Your task to perform on an android device: toggle notifications settings in the gmail app Image 0: 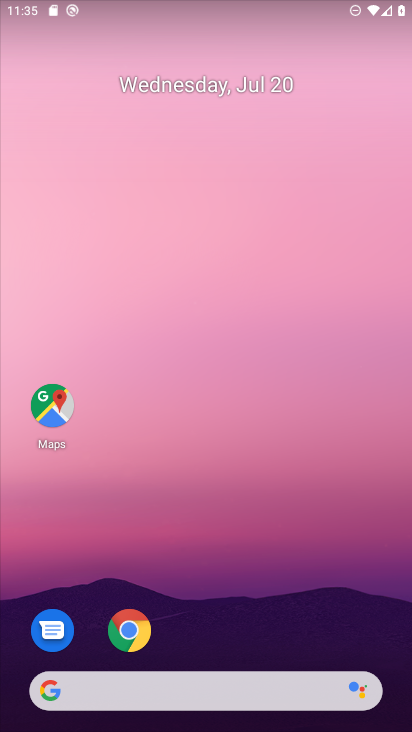
Step 0: drag from (222, 631) to (220, 80)
Your task to perform on an android device: toggle notifications settings in the gmail app Image 1: 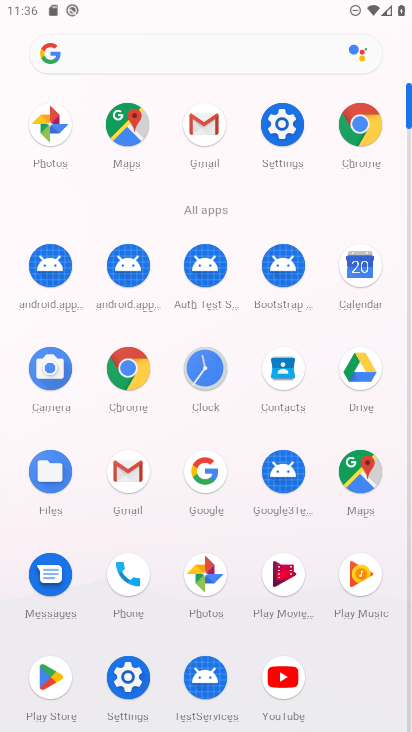
Step 1: click (132, 480)
Your task to perform on an android device: toggle notifications settings in the gmail app Image 2: 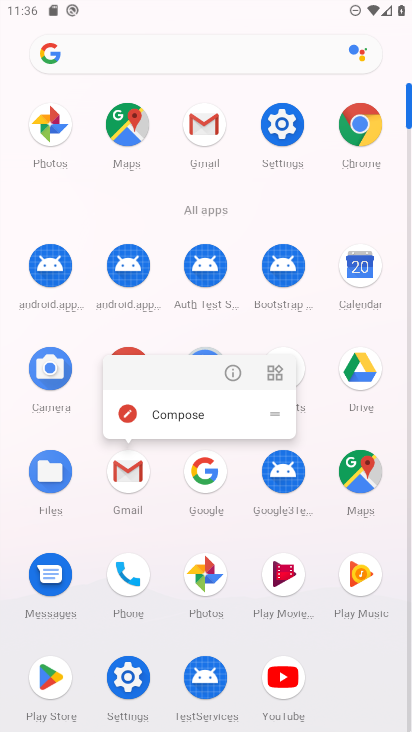
Step 2: click (127, 482)
Your task to perform on an android device: toggle notifications settings in the gmail app Image 3: 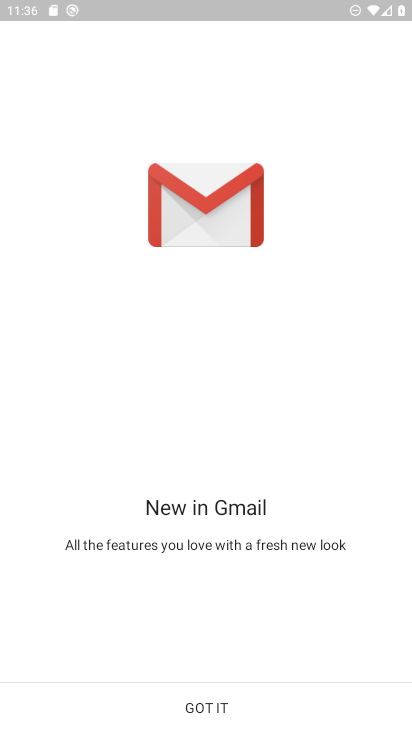
Step 3: click (243, 716)
Your task to perform on an android device: toggle notifications settings in the gmail app Image 4: 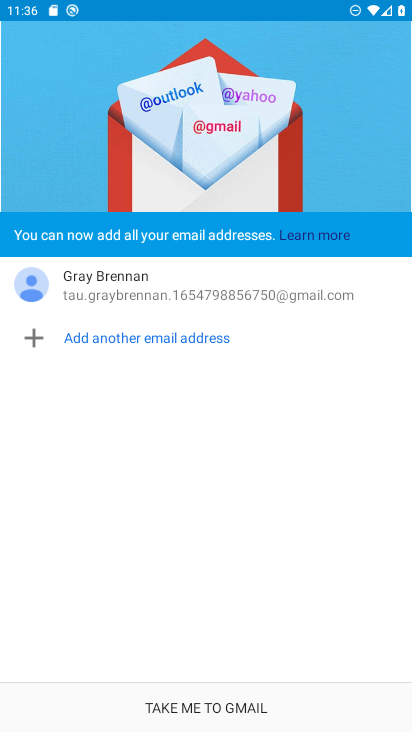
Step 4: click (237, 709)
Your task to perform on an android device: toggle notifications settings in the gmail app Image 5: 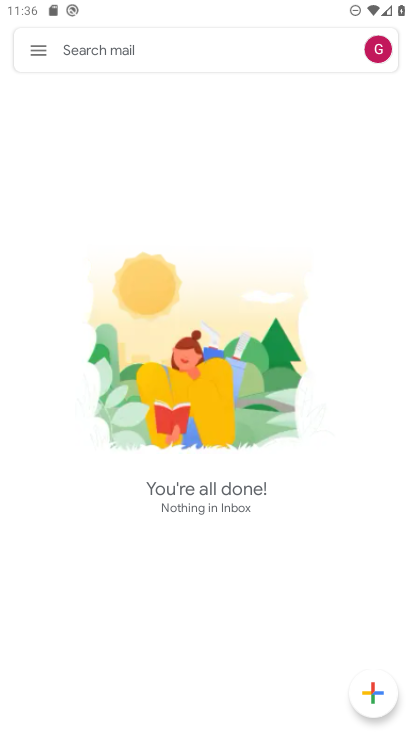
Step 5: click (30, 36)
Your task to perform on an android device: toggle notifications settings in the gmail app Image 6: 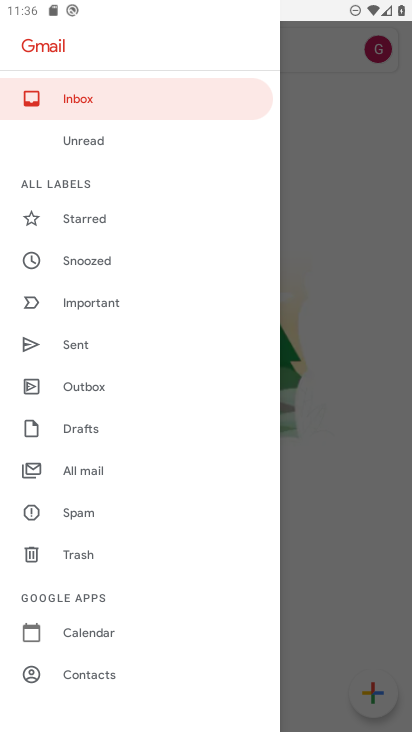
Step 6: drag from (88, 614) to (107, 276)
Your task to perform on an android device: toggle notifications settings in the gmail app Image 7: 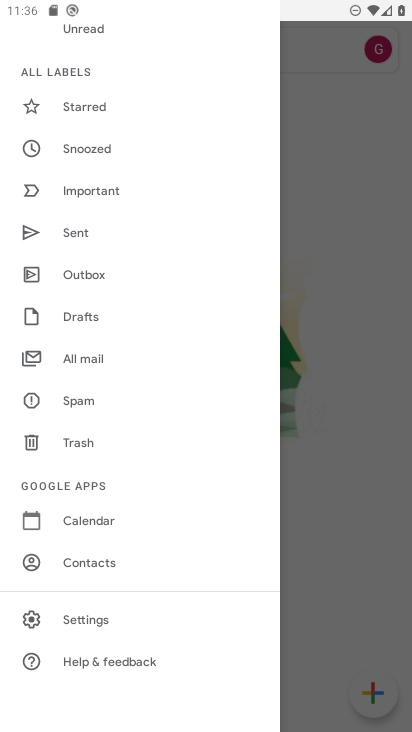
Step 7: click (90, 623)
Your task to perform on an android device: toggle notifications settings in the gmail app Image 8: 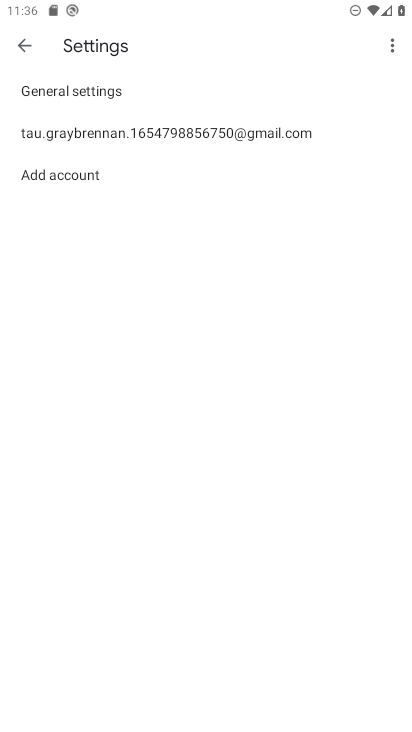
Step 8: click (129, 132)
Your task to perform on an android device: toggle notifications settings in the gmail app Image 9: 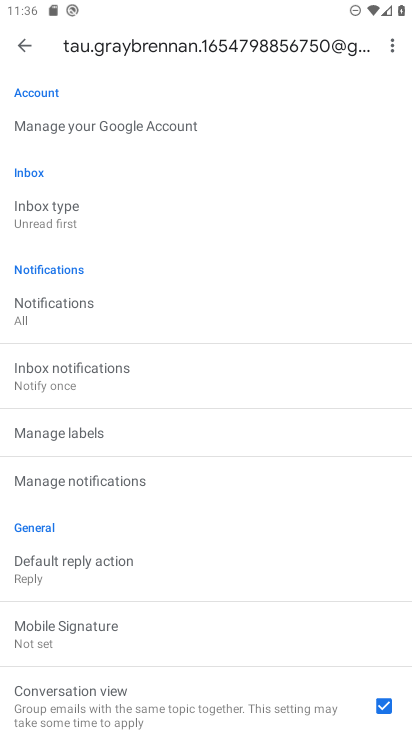
Step 9: click (26, 34)
Your task to perform on an android device: toggle notifications settings in the gmail app Image 10: 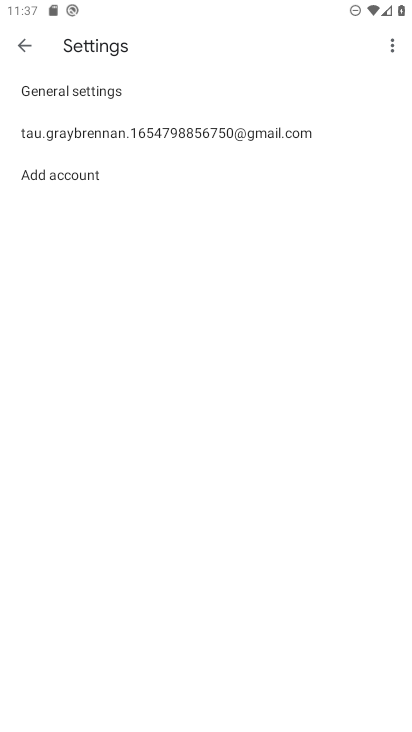
Step 10: click (91, 86)
Your task to perform on an android device: toggle notifications settings in the gmail app Image 11: 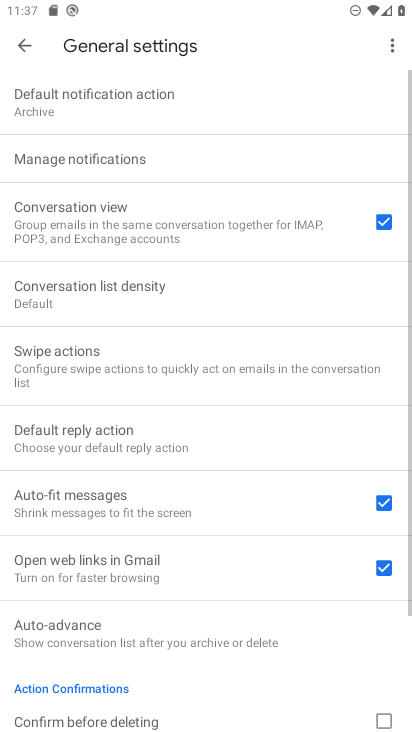
Step 11: click (103, 157)
Your task to perform on an android device: toggle notifications settings in the gmail app Image 12: 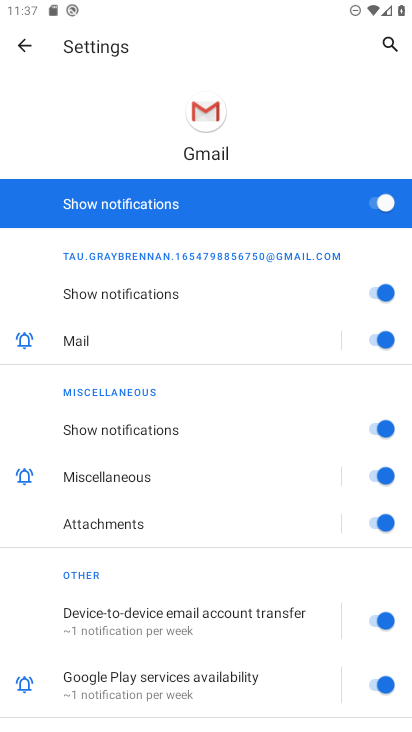
Step 12: click (353, 200)
Your task to perform on an android device: toggle notifications settings in the gmail app Image 13: 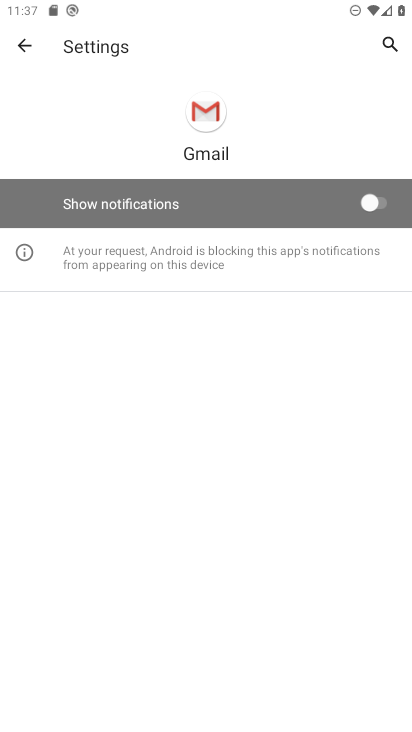
Step 13: task complete